Your task to perform on an android device: Toggle the flashlight Image 0: 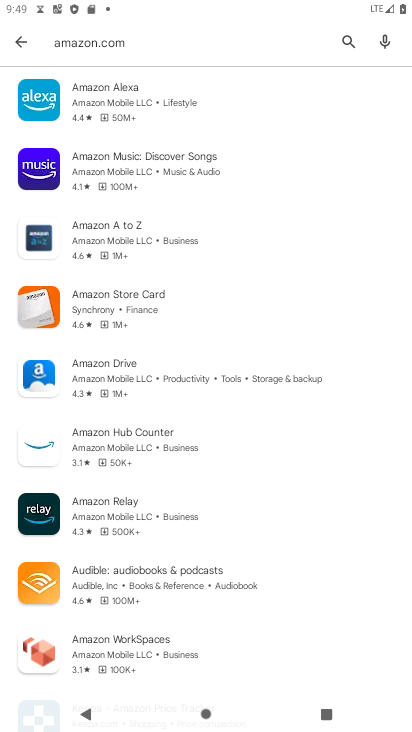
Step 0: press home button
Your task to perform on an android device: Toggle the flashlight Image 1: 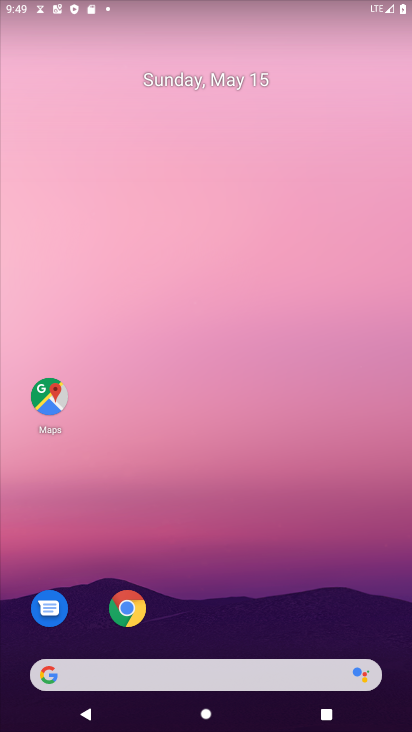
Step 1: drag from (367, 542) to (278, 5)
Your task to perform on an android device: Toggle the flashlight Image 2: 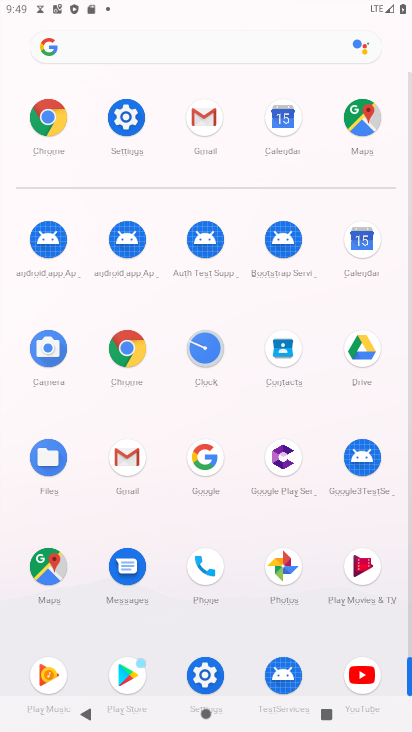
Step 2: click (129, 124)
Your task to perform on an android device: Toggle the flashlight Image 3: 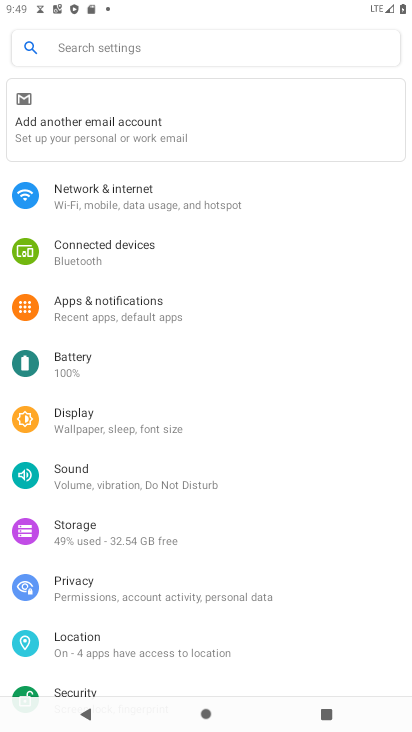
Step 3: task complete